Your task to perform on an android device: turn on the 12-hour format for clock Image 0: 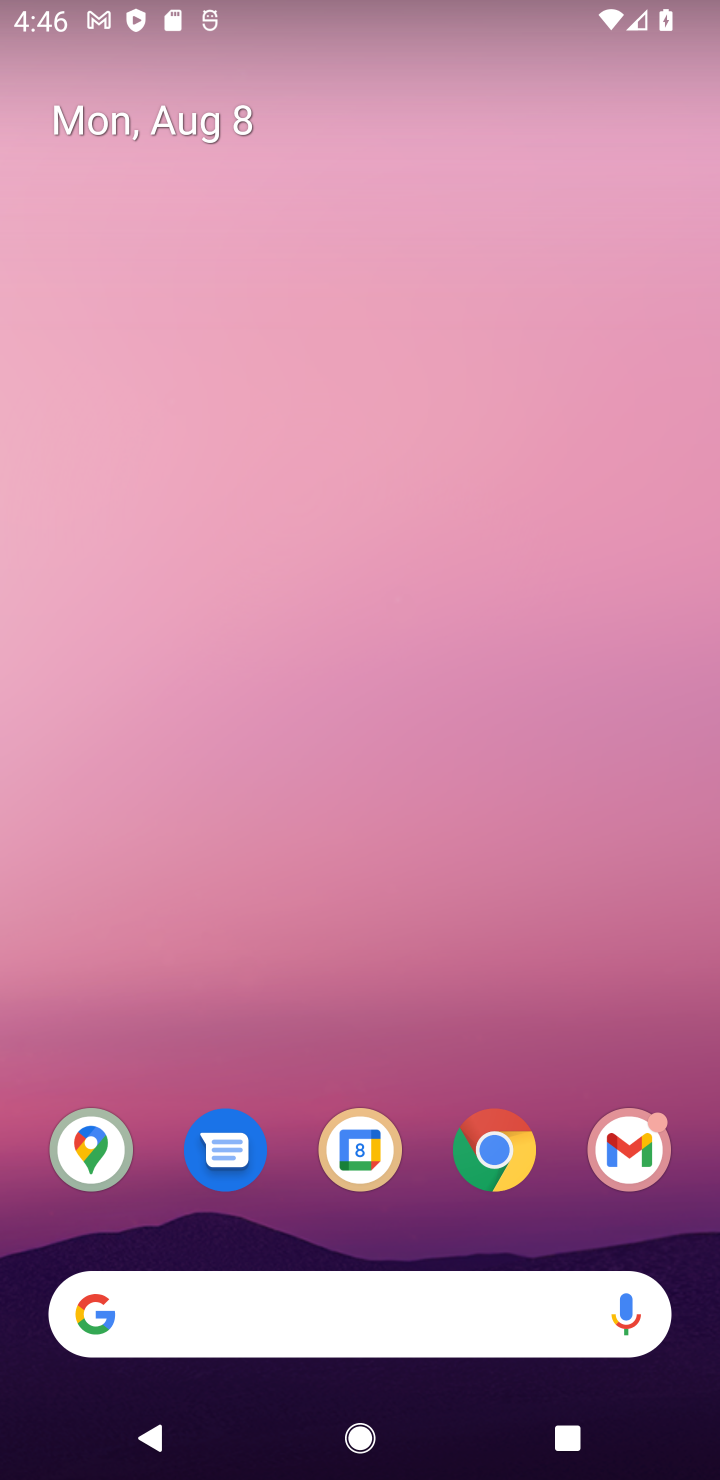
Step 0: drag from (319, 1236) to (253, 43)
Your task to perform on an android device: turn on the 12-hour format for clock Image 1: 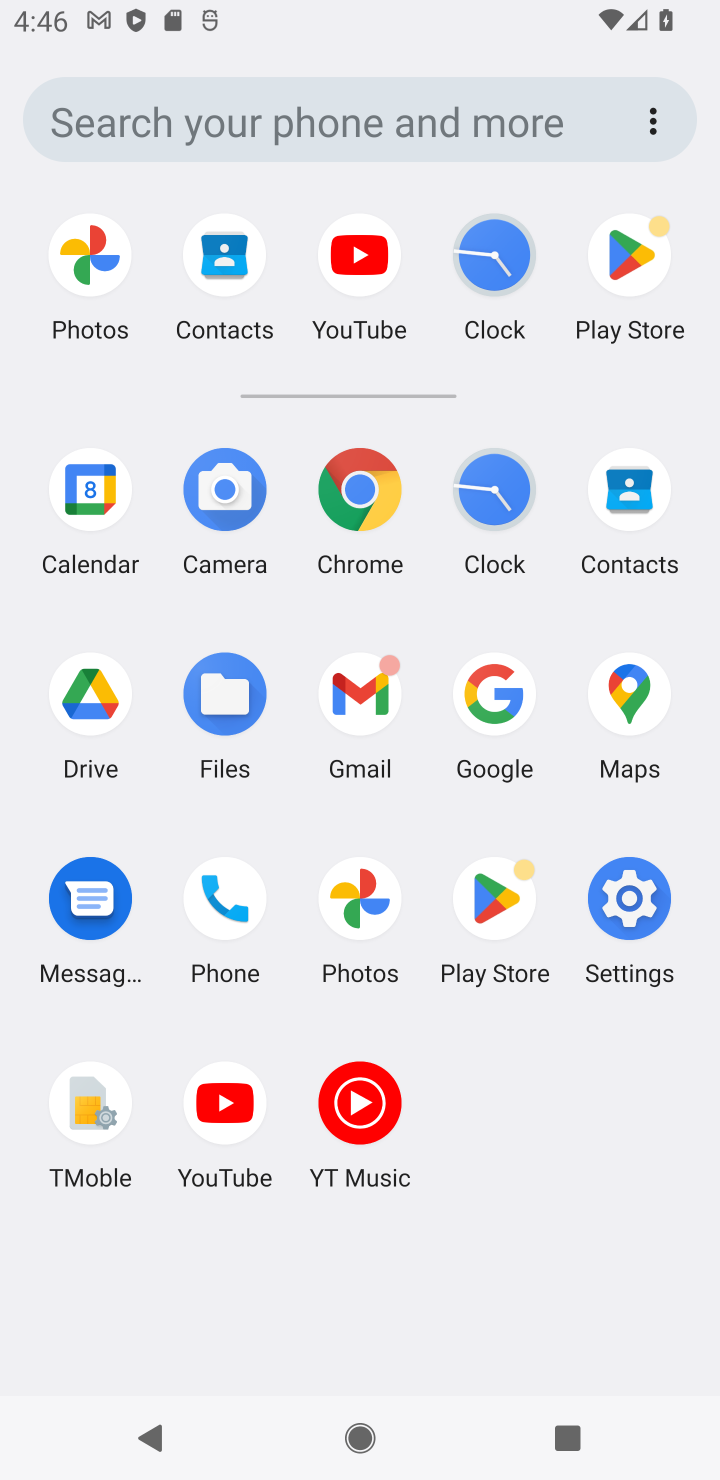
Step 1: click (519, 536)
Your task to perform on an android device: turn on the 12-hour format for clock Image 2: 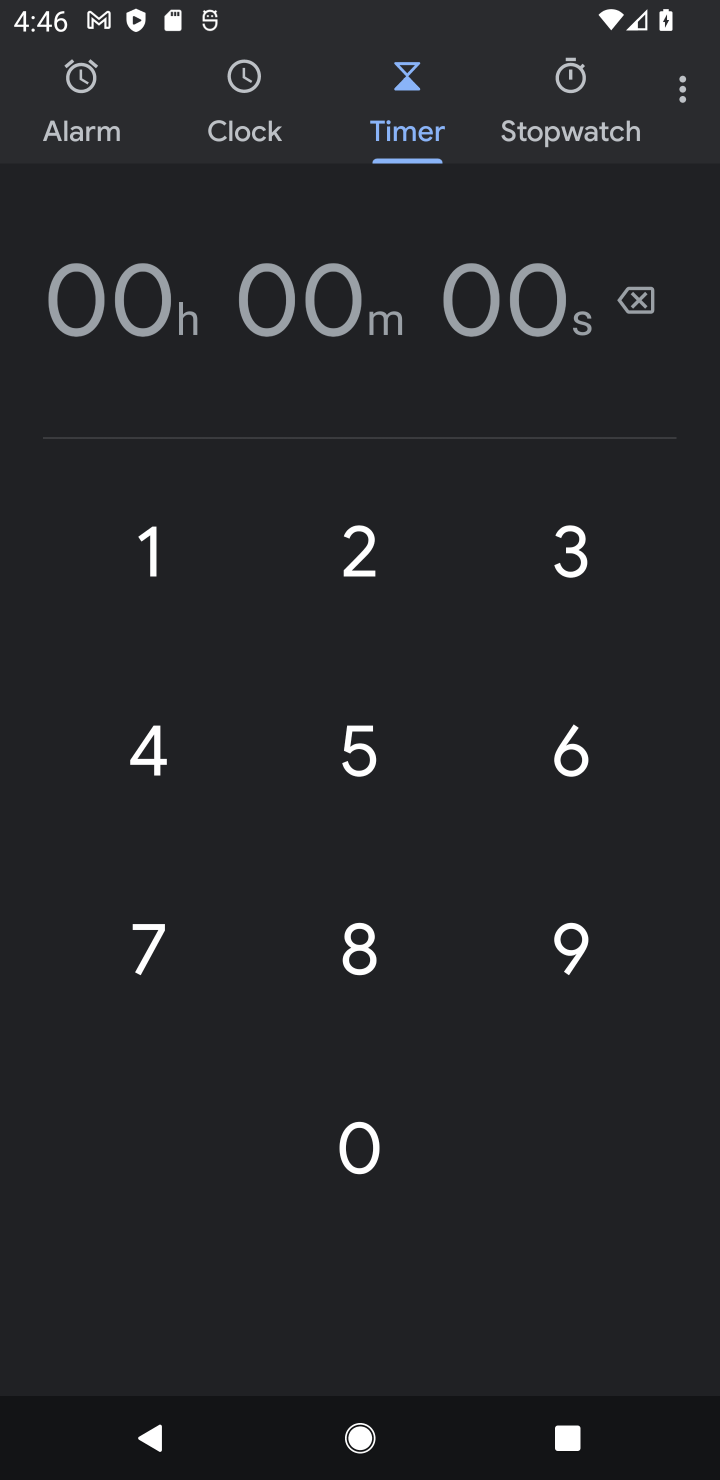
Step 2: task complete